Your task to perform on an android device: open device folders in google photos Image 0: 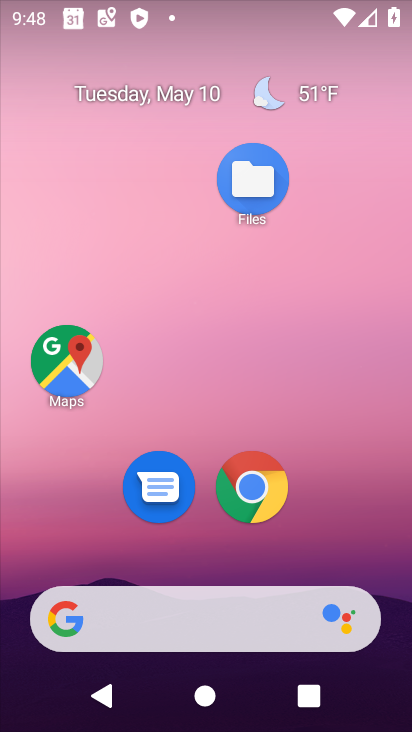
Step 0: drag from (196, 533) to (195, 52)
Your task to perform on an android device: open device folders in google photos Image 1: 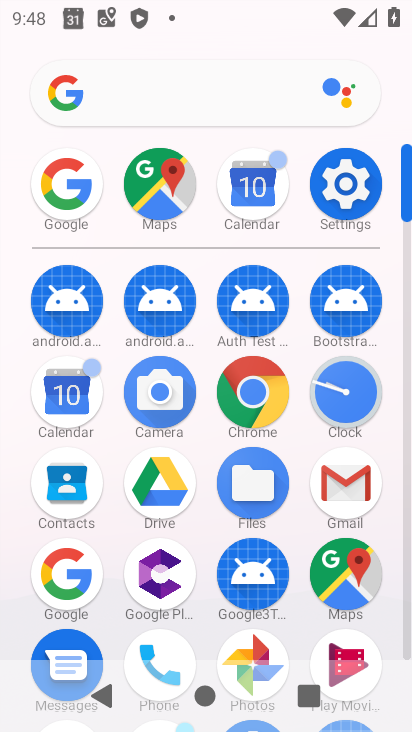
Step 1: click (255, 661)
Your task to perform on an android device: open device folders in google photos Image 2: 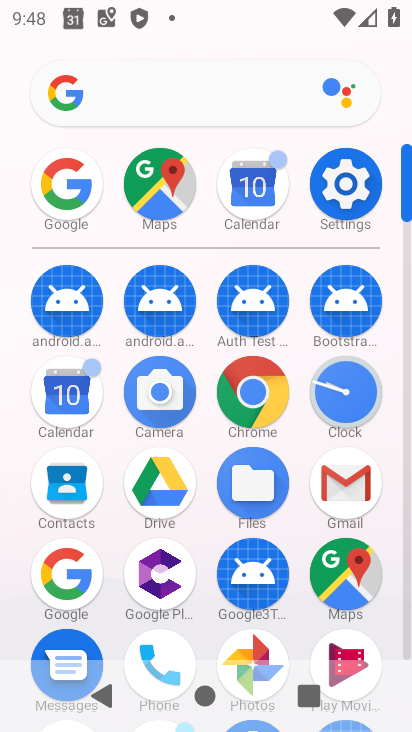
Step 2: click (255, 651)
Your task to perform on an android device: open device folders in google photos Image 3: 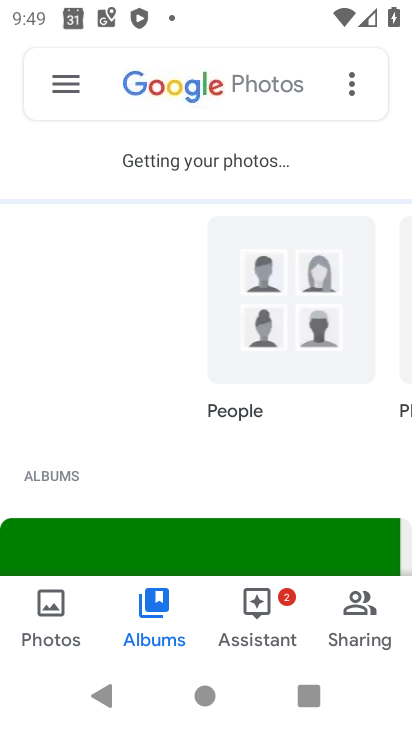
Step 3: click (62, 90)
Your task to perform on an android device: open device folders in google photos Image 4: 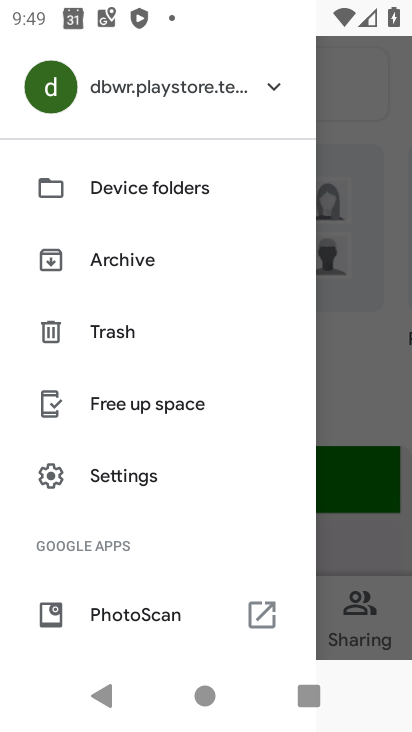
Step 4: click (149, 192)
Your task to perform on an android device: open device folders in google photos Image 5: 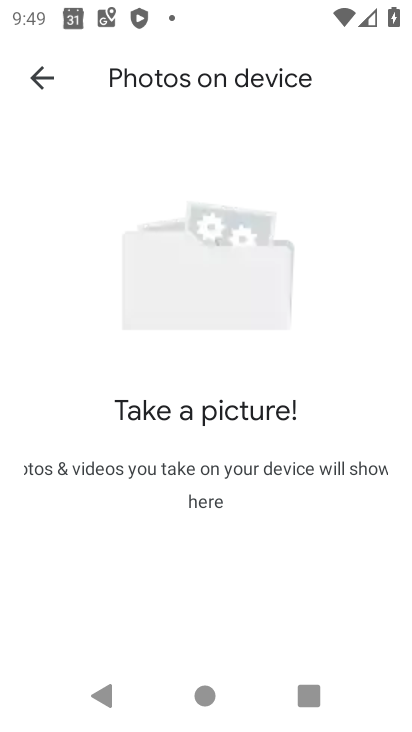
Step 5: task complete